Your task to perform on an android device: find which apps use the phone's location Image 0: 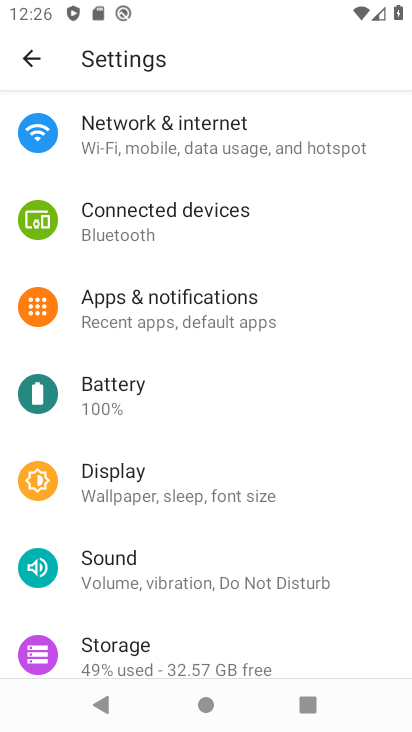
Step 0: press home button
Your task to perform on an android device: find which apps use the phone's location Image 1: 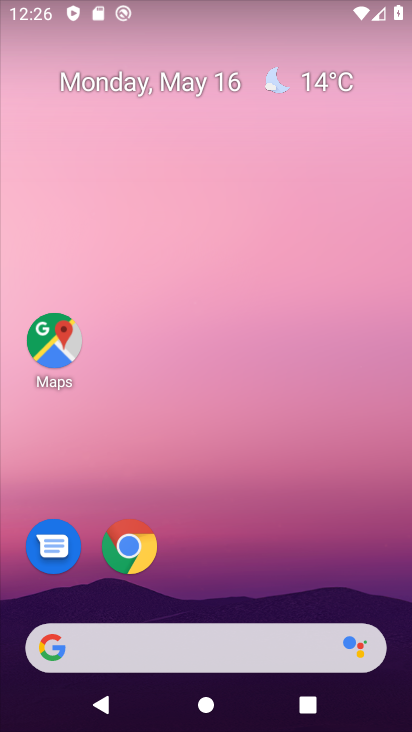
Step 1: drag from (254, 679) to (238, 266)
Your task to perform on an android device: find which apps use the phone's location Image 2: 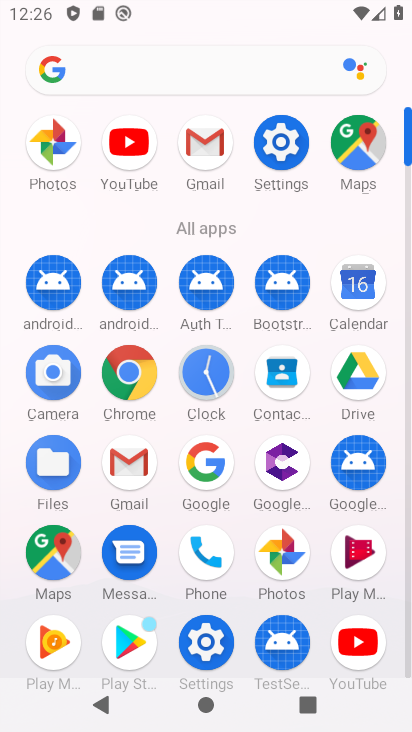
Step 2: click (281, 154)
Your task to perform on an android device: find which apps use the phone's location Image 3: 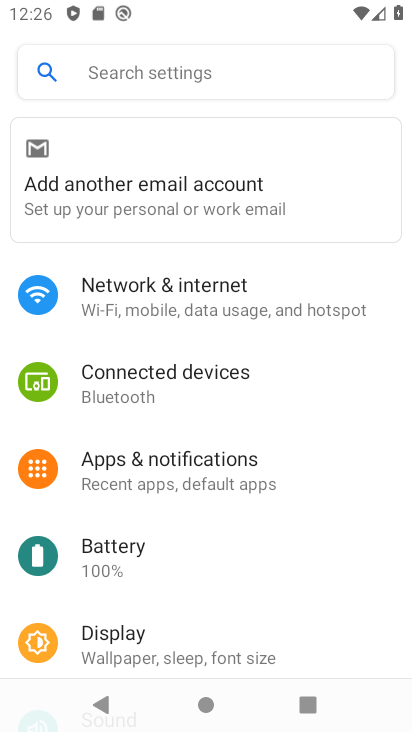
Step 3: click (142, 63)
Your task to perform on an android device: find which apps use the phone's location Image 4: 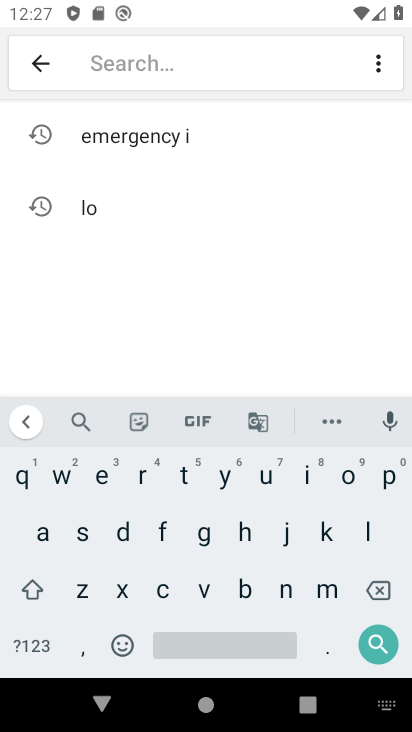
Step 4: click (73, 206)
Your task to perform on an android device: find which apps use the phone's location Image 5: 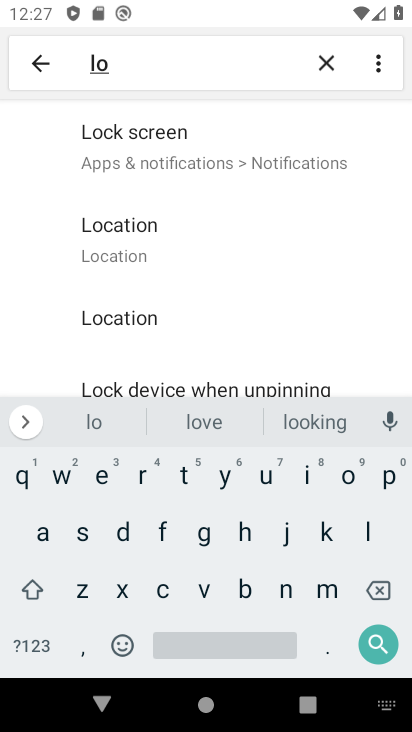
Step 5: click (87, 253)
Your task to perform on an android device: find which apps use the phone's location Image 6: 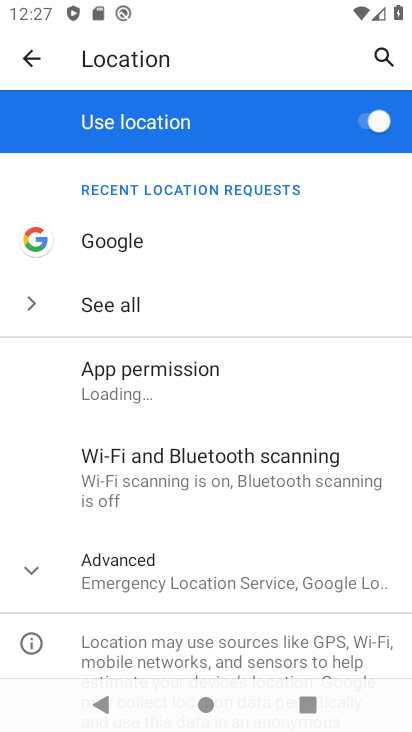
Step 6: task complete